Your task to perform on an android device: Open internet settings Image 0: 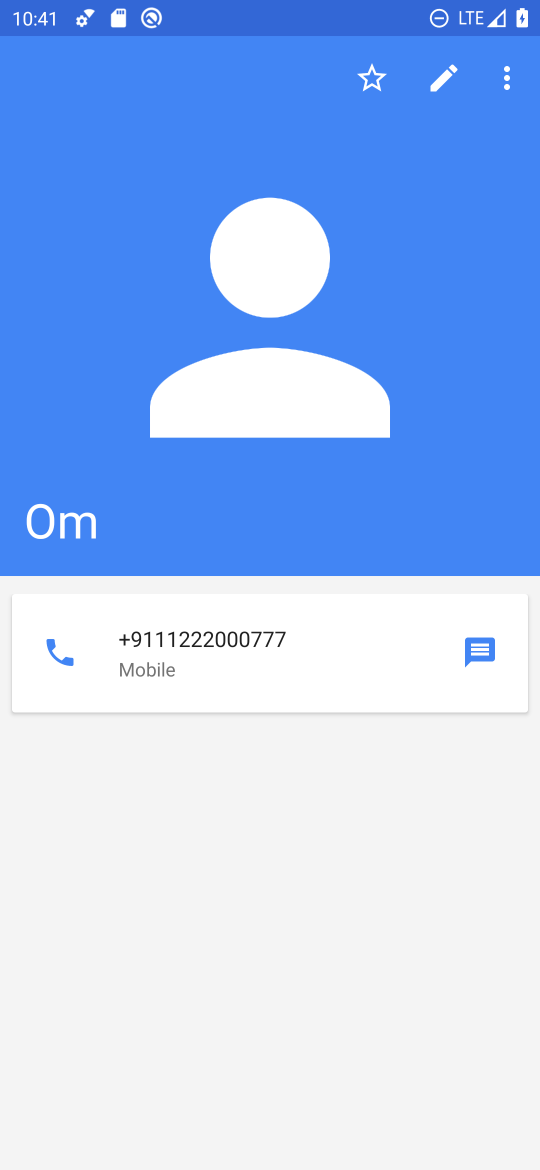
Step 0: press home button
Your task to perform on an android device: Open internet settings Image 1: 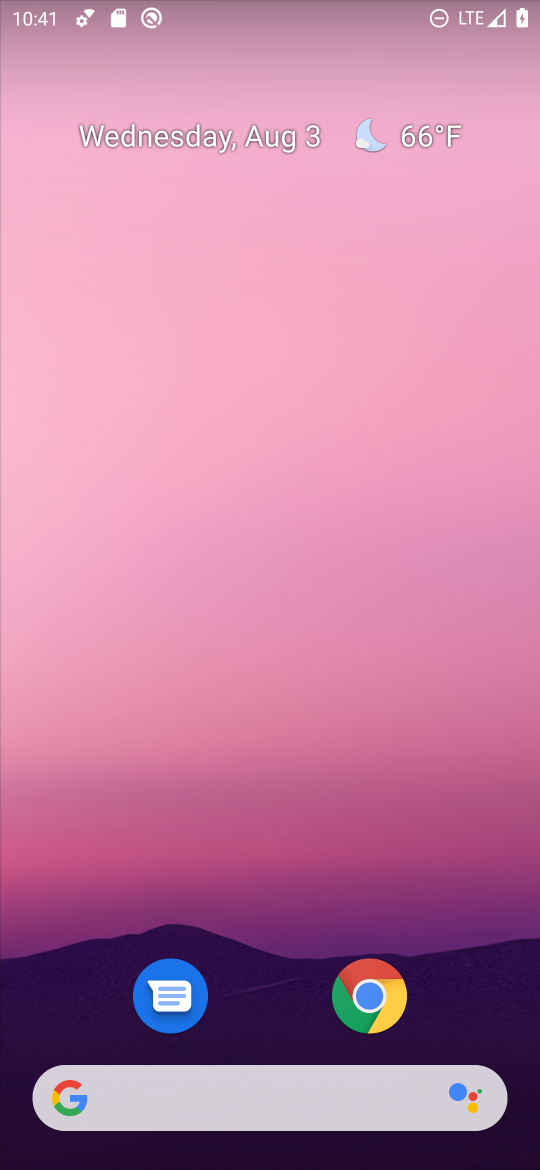
Step 1: drag from (281, 912) to (328, 42)
Your task to perform on an android device: Open internet settings Image 2: 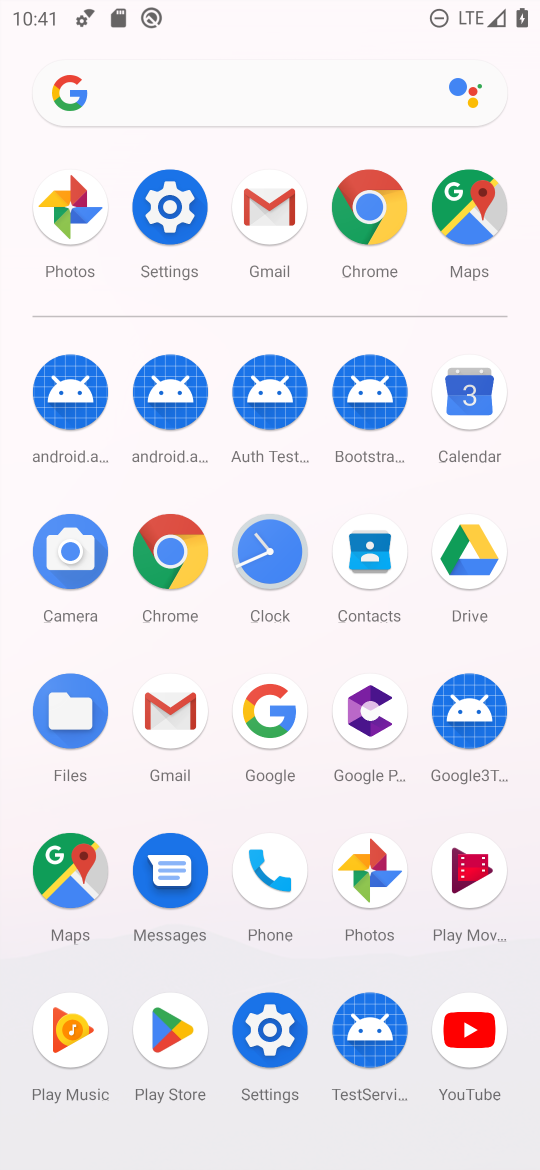
Step 2: click (176, 217)
Your task to perform on an android device: Open internet settings Image 3: 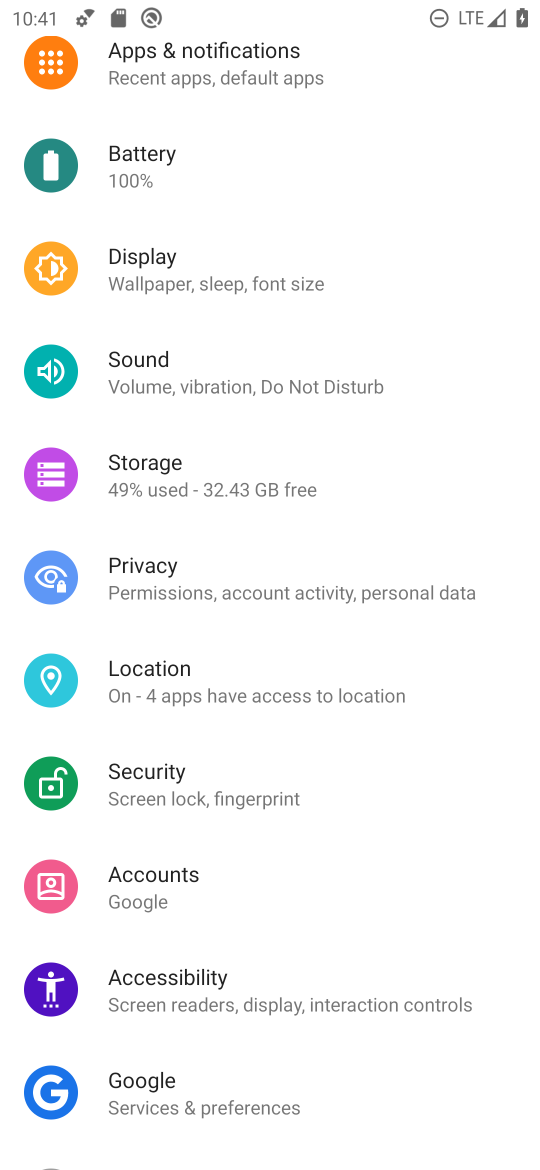
Step 3: drag from (280, 570) to (395, 923)
Your task to perform on an android device: Open internet settings Image 4: 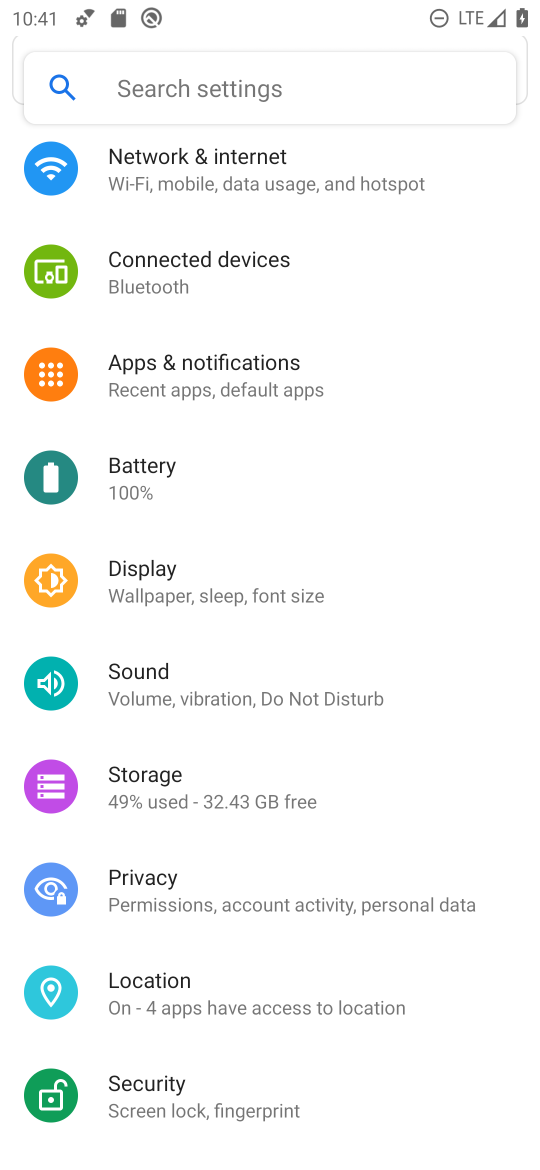
Step 4: click (356, 170)
Your task to perform on an android device: Open internet settings Image 5: 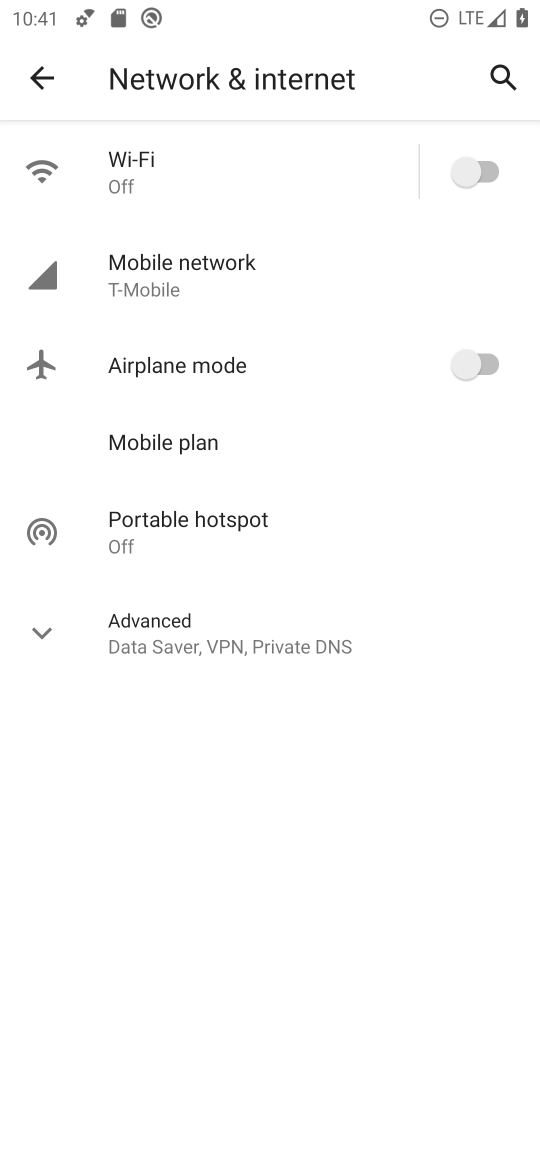
Step 5: task complete